Your task to perform on an android device: open a new tab in the chrome app Image 0: 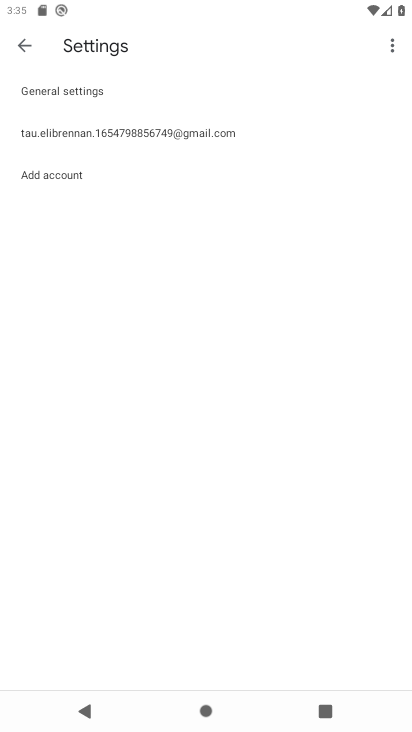
Step 0: press home button
Your task to perform on an android device: open a new tab in the chrome app Image 1: 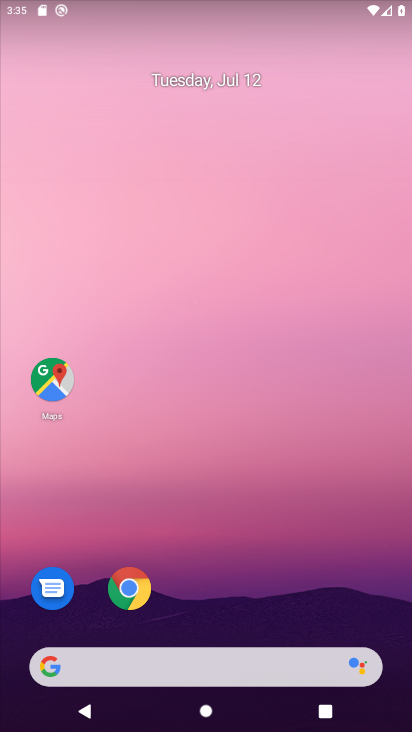
Step 1: drag from (267, 625) to (219, 27)
Your task to perform on an android device: open a new tab in the chrome app Image 2: 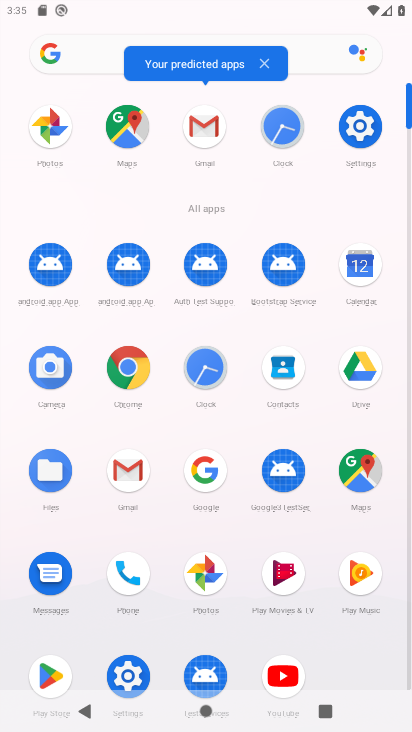
Step 2: click (123, 368)
Your task to perform on an android device: open a new tab in the chrome app Image 3: 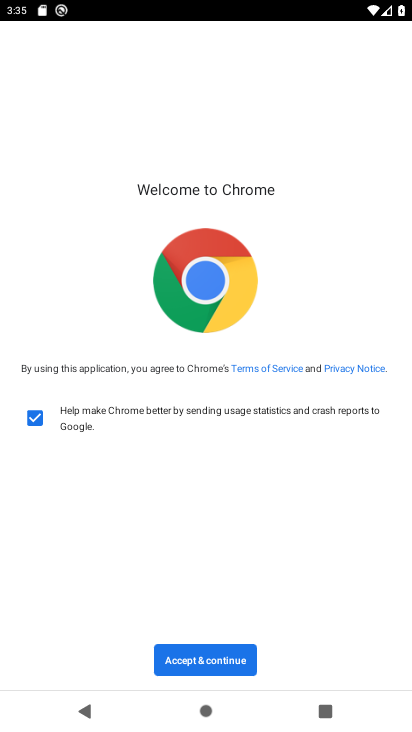
Step 3: click (231, 660)
Your task to perform on an android device: open a new tab in the chrome app Image 4: 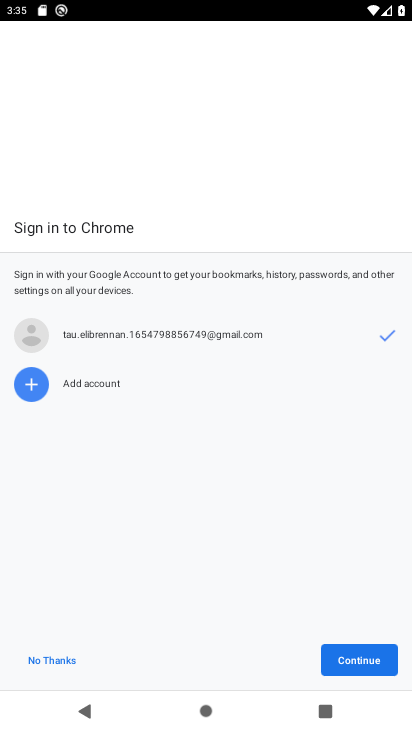
Step 4: click (340, 666)
Your task to perform on an android device: open a new tab in the chrome app Image 5: 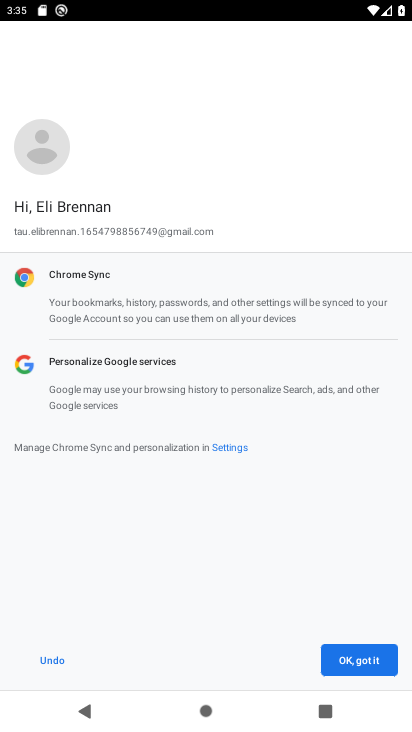
Step 5: click (352, 667)
Your task to perform on an android device: open a new tab in the chrome app Image 6: 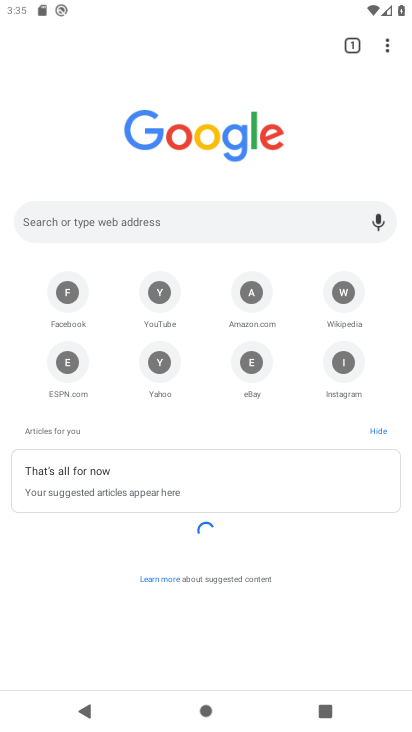
Step 6: click (387, 49)
Your task to perform on an android device: open a new tab in the chrome app Image 7: 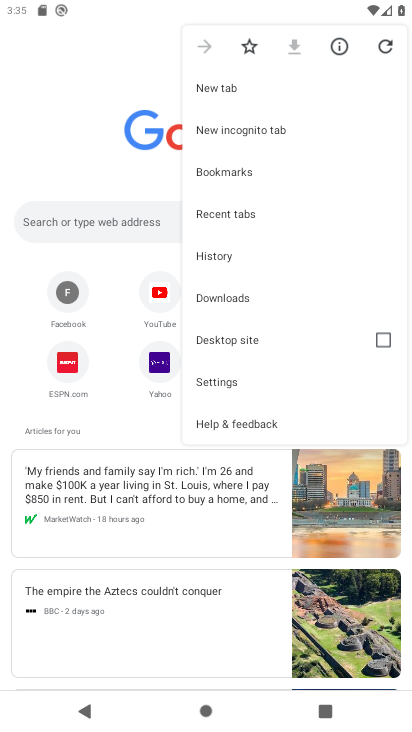
Step 7: click (234, 90)
Your task to perform on an android device: open a new tab in the chrome app Image 8: 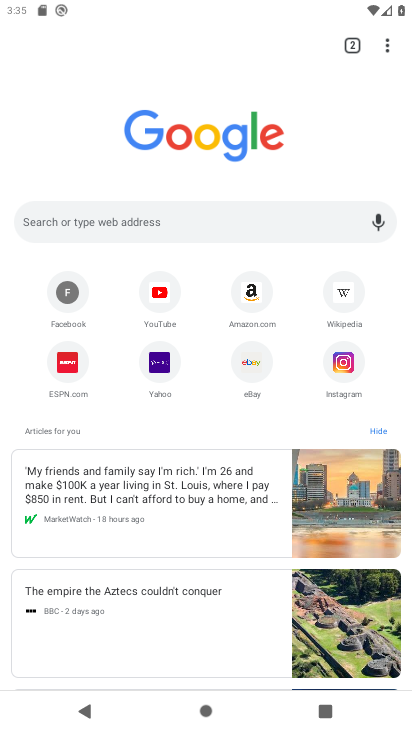
Step 8: task complete